Your task to perform on an android device: Open Wikipedia Image 0: 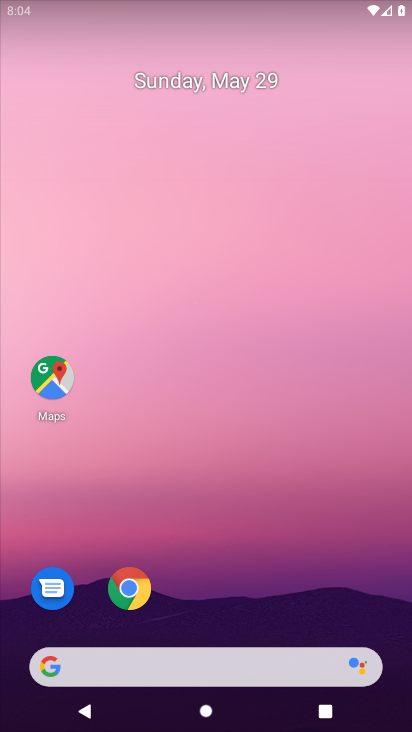
Step 0: click (131, 579)
Your task to perform on an android device: Open Wikipedia Image 1: 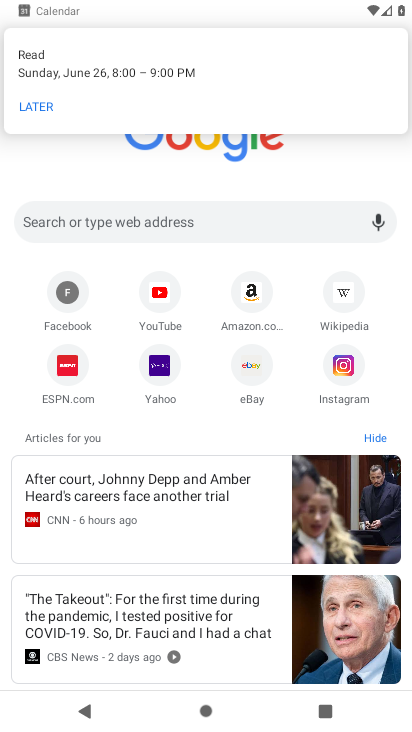
Step 1: click (346, 292)
Your task to perform on an android device: Open Wikipedia Image 2: 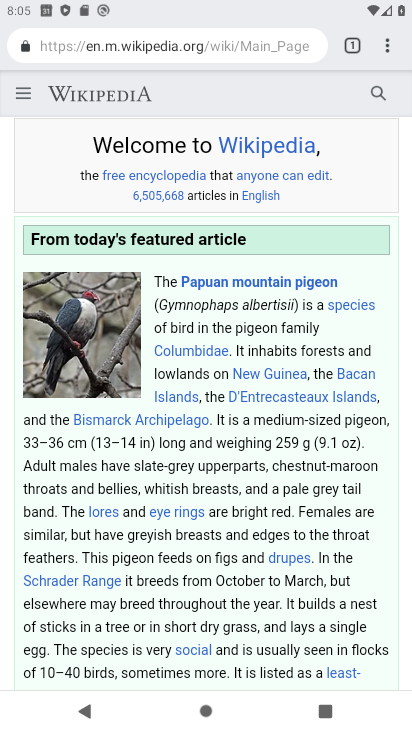
Step 2: task complete